Your task to perform on an android device: toggle translation in the chrome app Image 0: 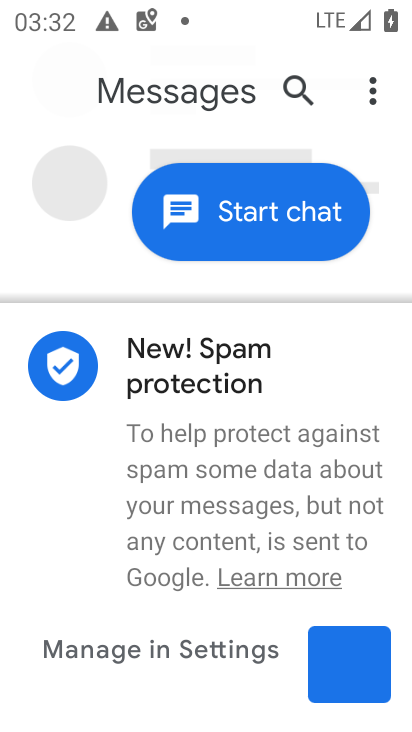
Step 0: click (251, 604)
Your task to perform on an android device: toggle translation in the chrome app Image 1: 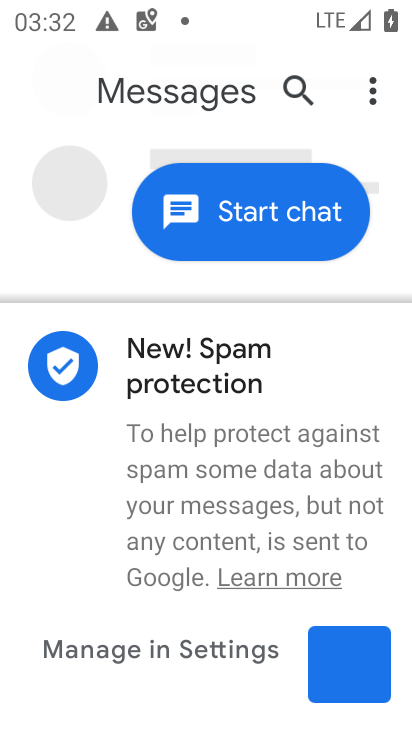
Step 1: press home button
Your task to perform on an android device: toggle translation in the chrome app Image 2: 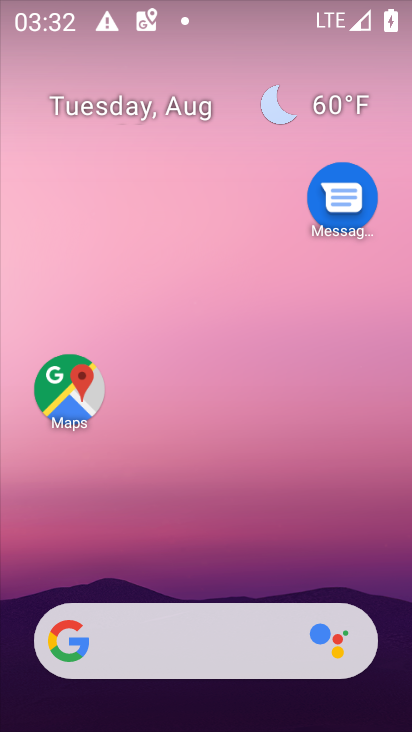
Step 2: drag from (195, 568) to (200, 44)
Your task to perform on an android device: toggle translation in the chrome app Image 3: 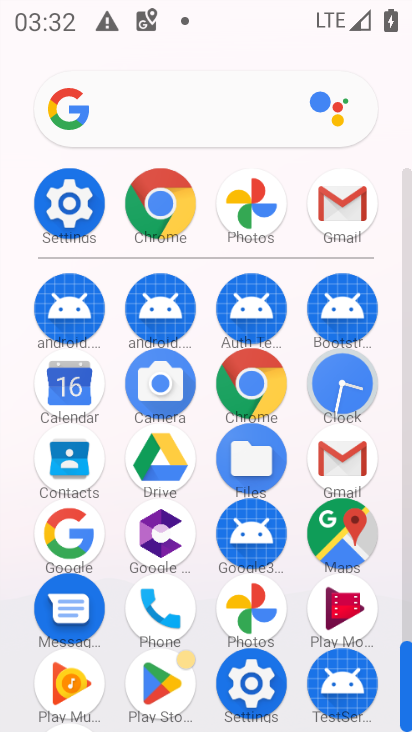
Step 3: click (153, 215)
Your task to perform on an android device: toggle translation in the chrome app Image 4: 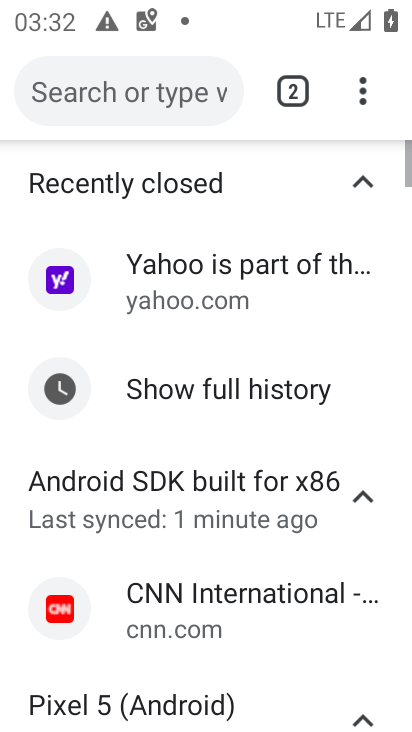
Step 4: click (365, 92)
Your task to perform on an android device: toggle translation in the chrome app Image 5: 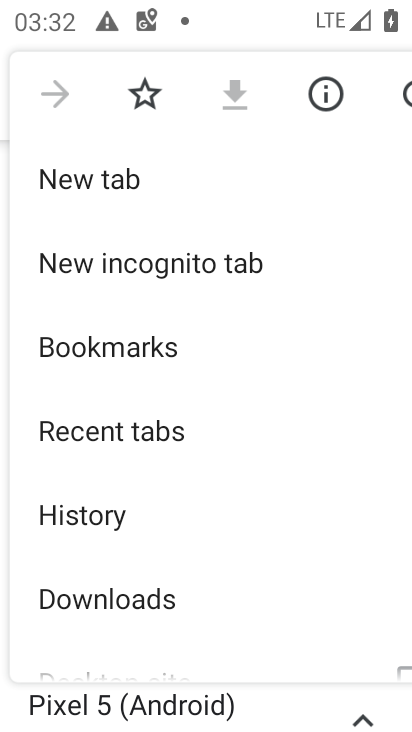
Step 5: drag from (187, 604) to (199, 174)
Your task to perform on an android device: toggle translation in the chrome app Image 6: 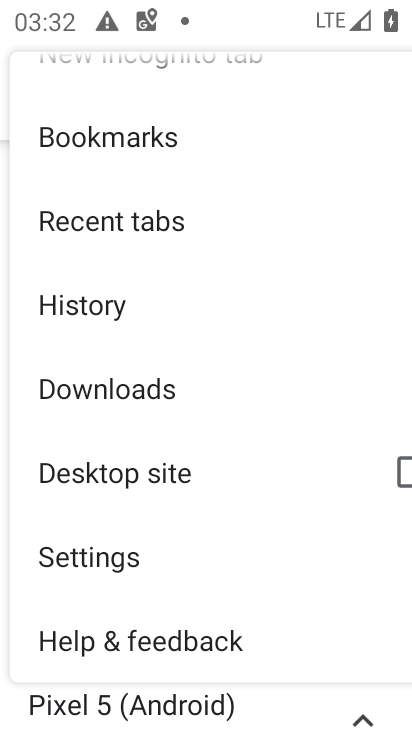
Step 6: click (137, 545)
Your task to perform on an android device: toggle translation in the chrome app Image 7: 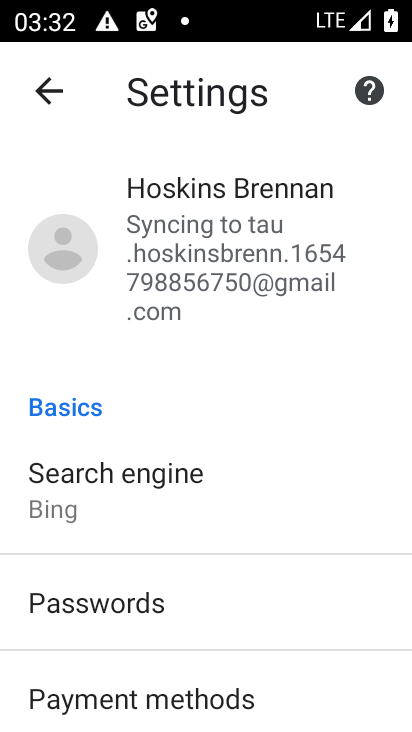
Step 7: task complete